Your task to perform on an android device: Open network settings Image 0: 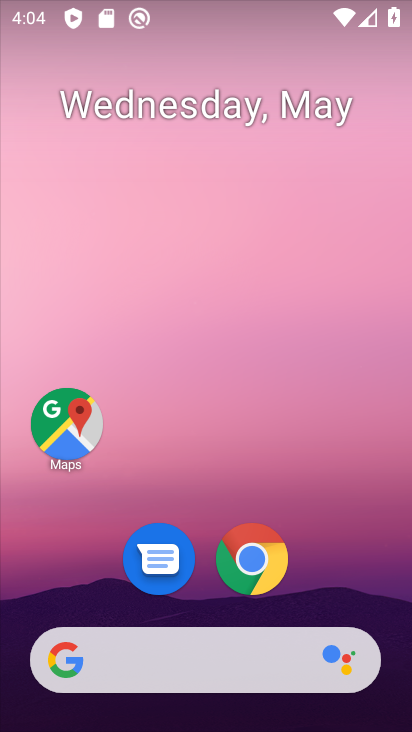
Step 0: drag from (308, 443) to (191, 107)
Your task to perform on an android device: Open network settings Image 1: 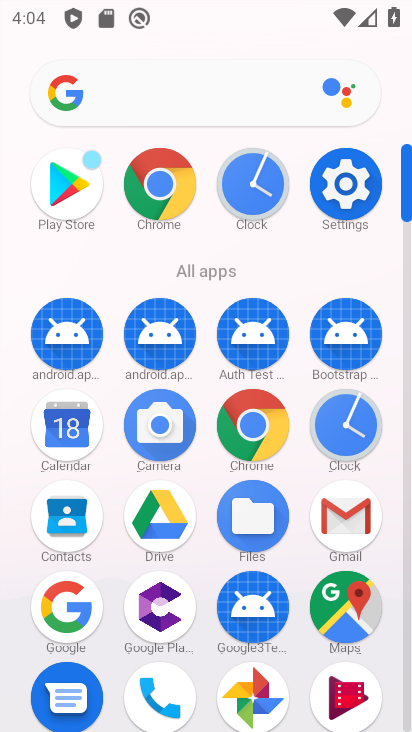
Step 1: click (338, 214)
Your task to perform on an android device: Open network settings Image 2: 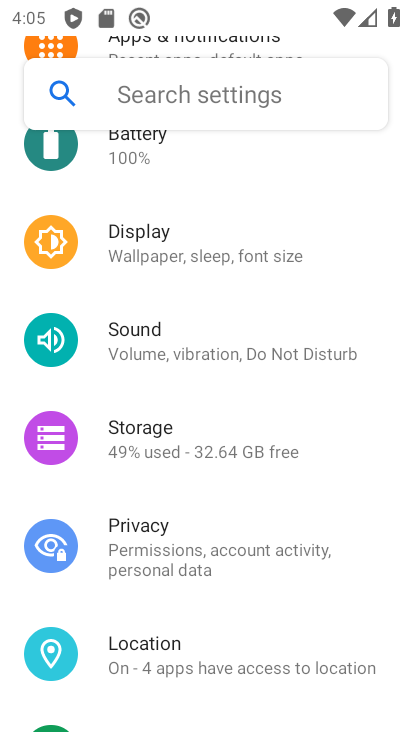
Step 2: drag from (221, 205) to (249, 707)
Your task to perform on an android device: Open network settings Image 3: 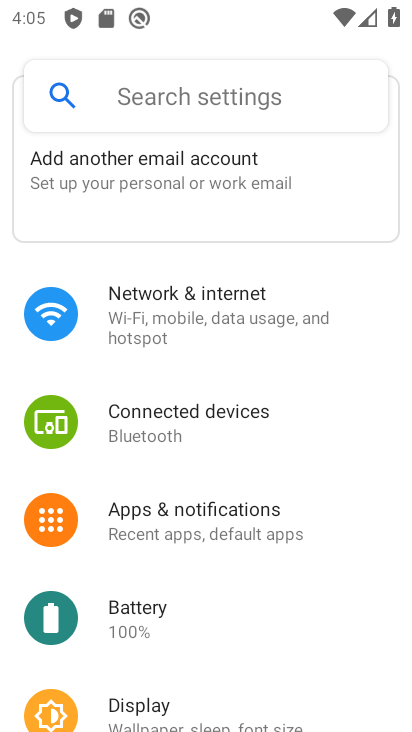
Step 3: click (206, 278)
Your task to perform on an android device: Open network settings Image 4: 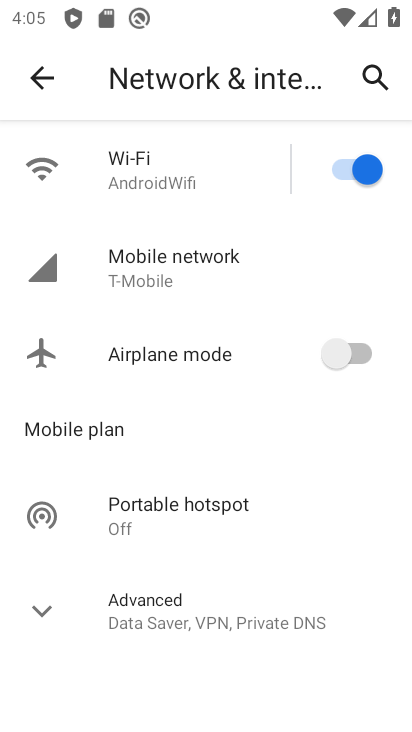
Step 4: task complete